Your task to perform on an android device: turn off location Image 0: 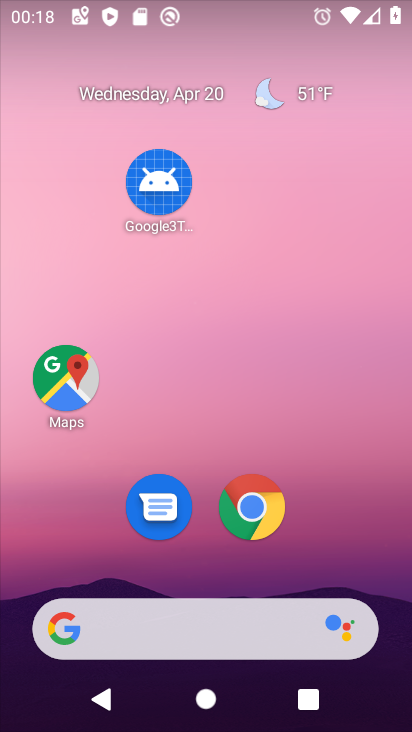
Step 0: drag from (204, 519) to (194, 13)
Your task to perform on an android device: turn off location Image 1: 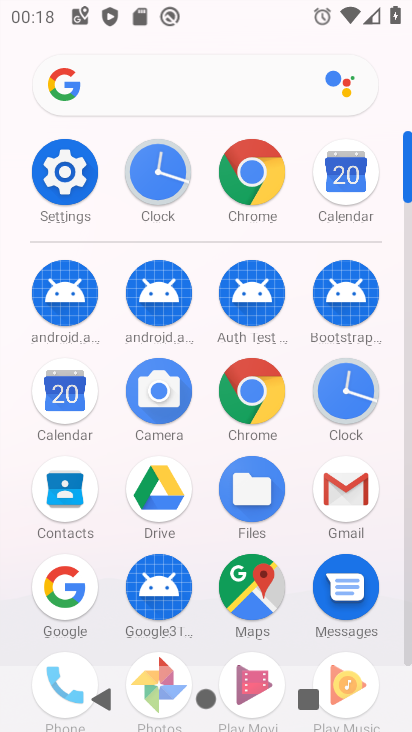
Step 1: click (65, 175)
Your task to perform on an android device: turn off location Image 2: 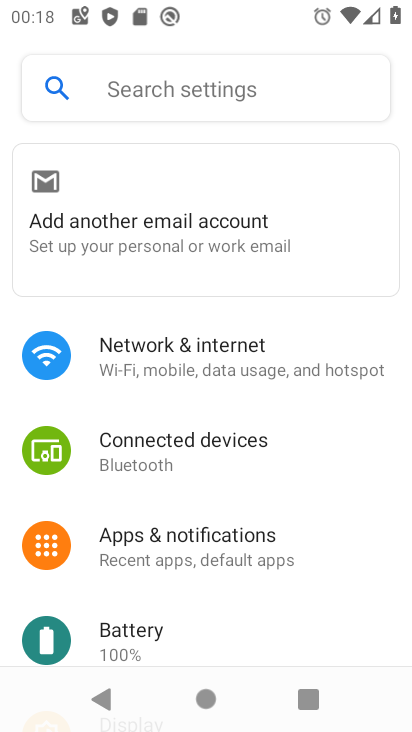
Step 2: drag from (224, 254) to (223, 179)
Your task to perform on an android device: turn off location Image 3: 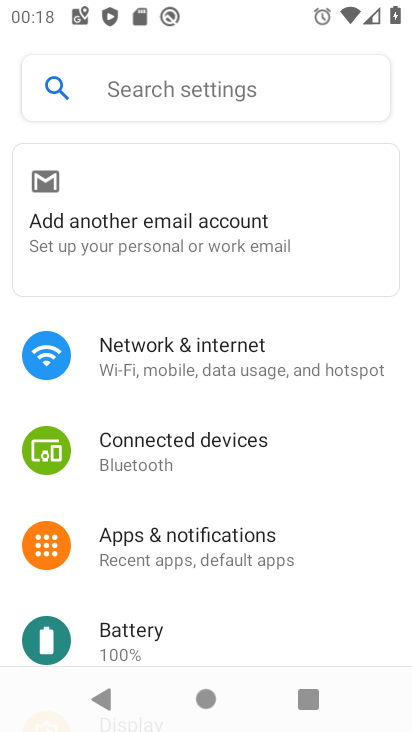
Step 3: drag from (213, 609) to (243, 157)
Your task to perform on an android device: turn off location Image 4: 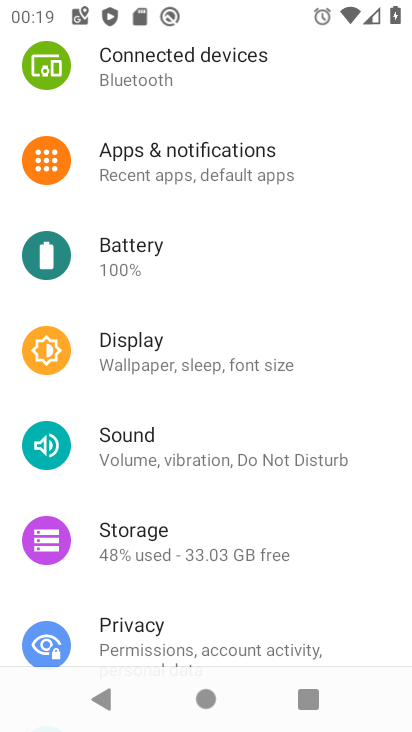
Step 4: drag from (171, 505) to (187, 80)
Your task to perform on an android device: turn off location Image 5: 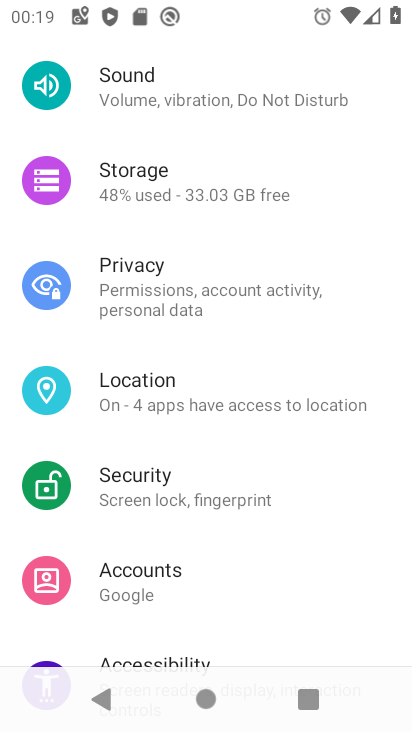
Step 5: click (141, 377)
Your task to perform on an android device: turn off location Image 6: 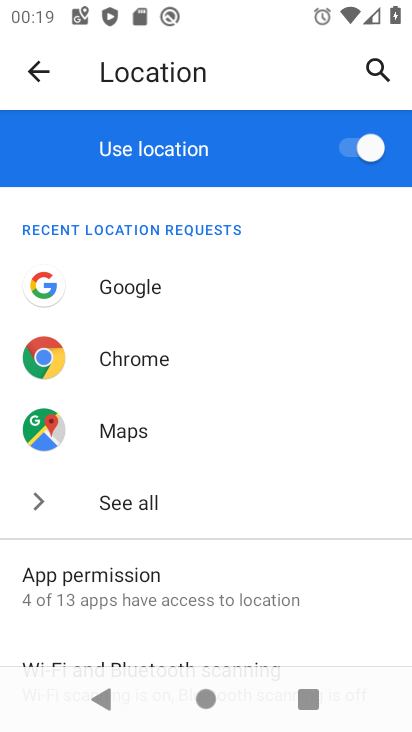
Step 6: click (363, 156)
Your task to perform on an android device: turn off location Image 7: 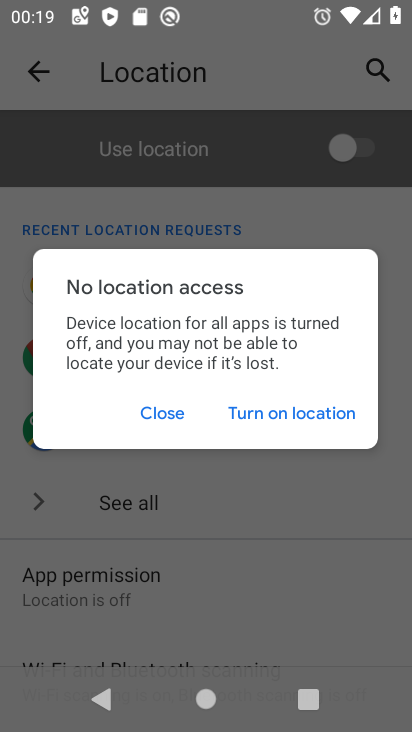
Step 7: click (161, 409)
Your task to perform on an android device: turn off location Image 8: 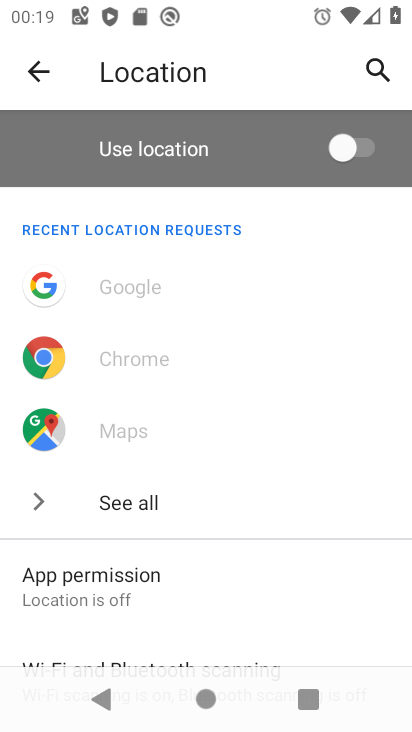
Step 8: task complete